Your task to perform on an android device: Play the last video I watched on Youtube Image 0: 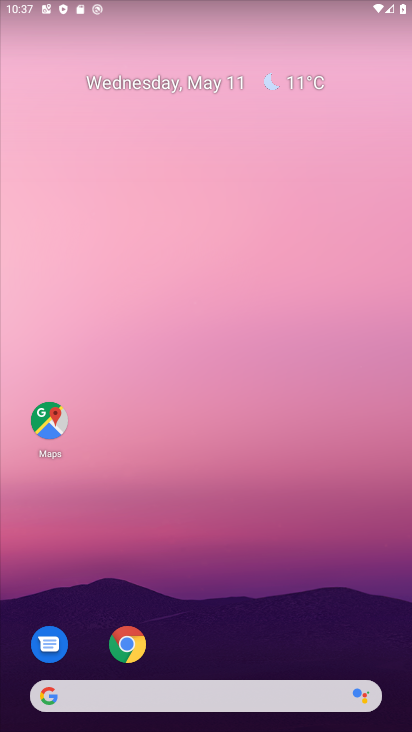
Step 0: drag from (274, 668) to (271, 13)
Your task to perform on an android device: Play the last video I watched on Youtube Image 1: 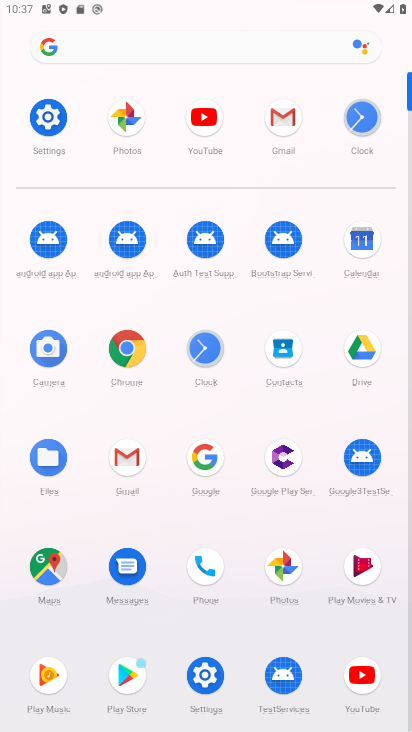
Step 1: click (200, 114)
Your task to perform on an android device: Play the last video I watched on Youtube Image 2: 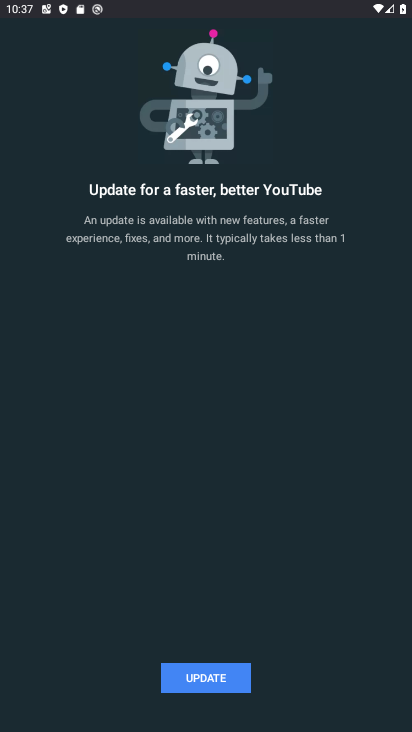
Step 2: click (212, 689)
Your task to perform on an android device: Play the last video I watched on Youtube Image 3: 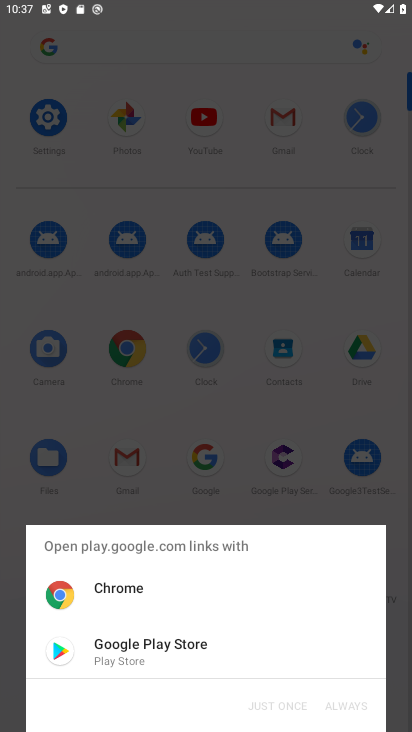
Step 3: click (131, 649)
Your task to perform on an android device: Play the last video I watched on Youtube Image 4: 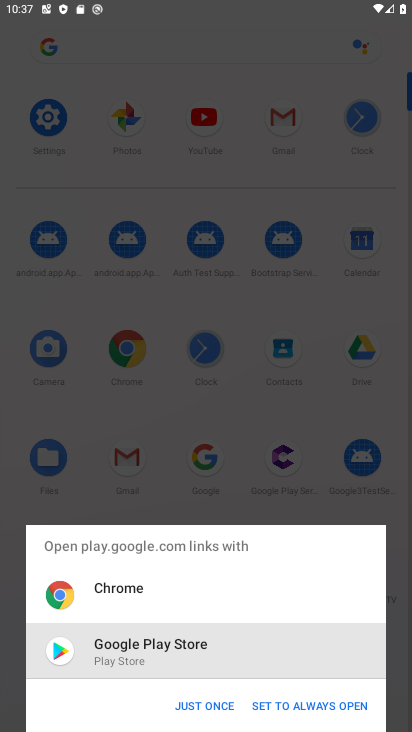
Step 4: click (183, 710)
Your task to perform on an android device: Play the last video I watched on Youtube Image 5: 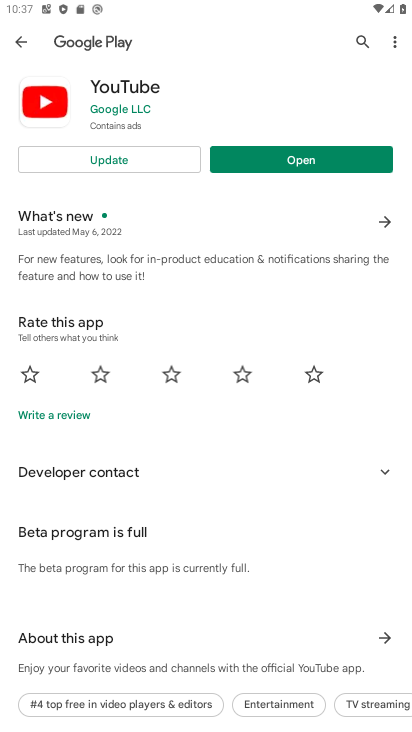
Step 5: click (161, 154)
Your task to perform on an android device: Play the last video I watched on Youtube Image 6: 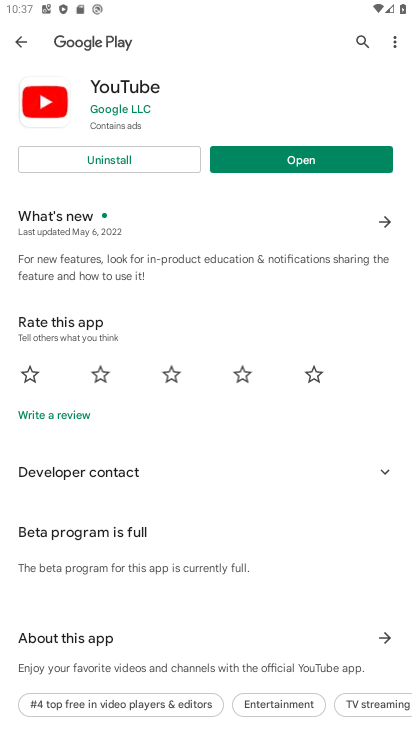
Step 6: click (281, 164)
Your task to perform on an android device: Play the last video I watched on Youtube Image 7: 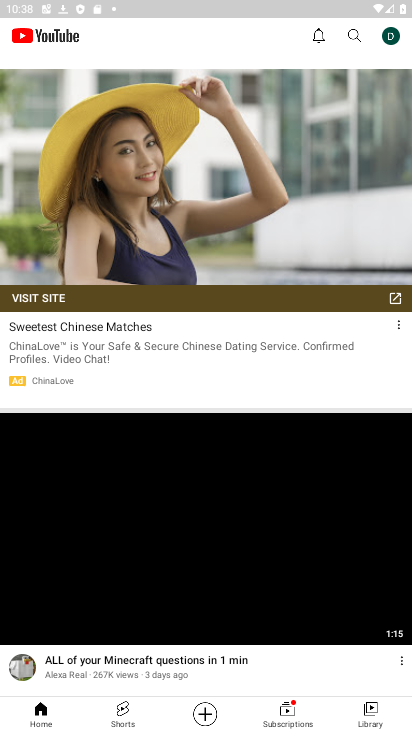
Step 7: click (367, 723)
Your task to perform on an android device: Play the last video I watched on Youtube Image 8: 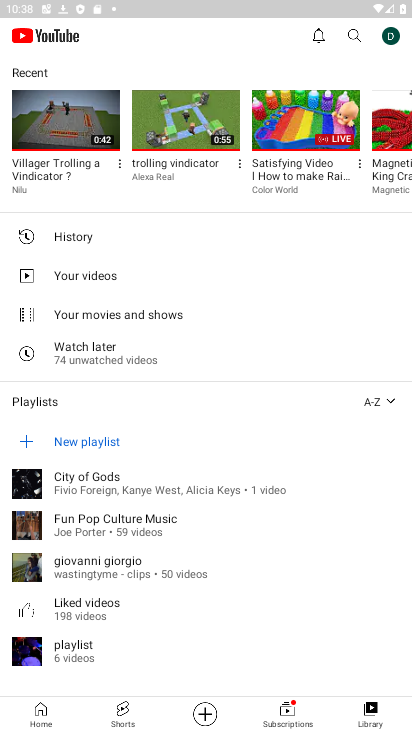
Step 8: click (77, 240)
Your task to perform on an android device: Play the last video I watched on Youtube Image 9: 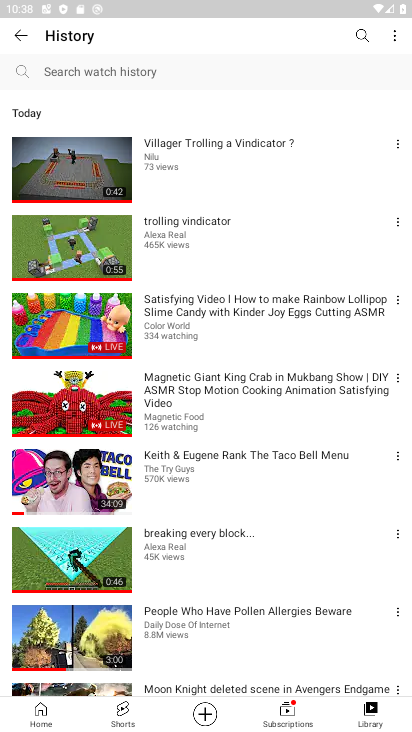
Step 9: click (68, 170)
Your task to perform on an android device: Play the last video I watched on Youtube Image 10: 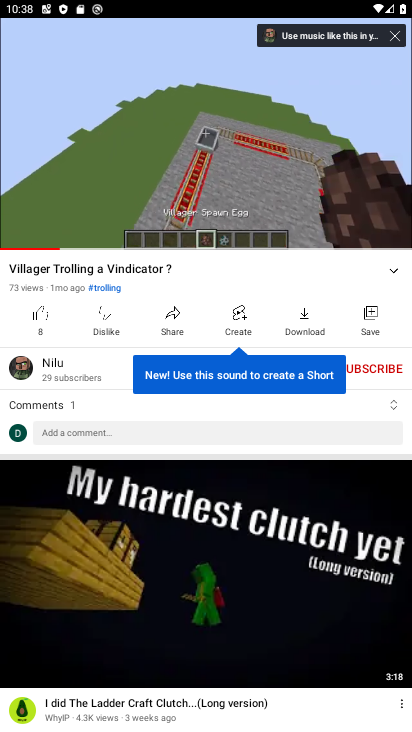
Step 10: click (220, 188)
Your task to perform on an android device: Play the last video I watched on Youtube Image 11: 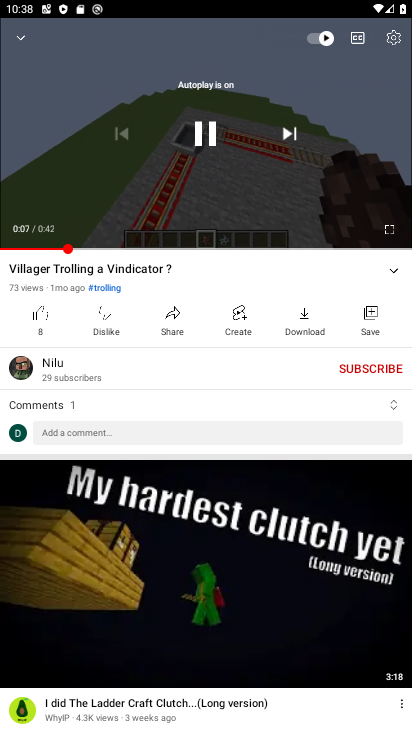
Step 11: click (195, 142)
Your task to perform on an android device: Play the last video I watched on Youtube Image 12: 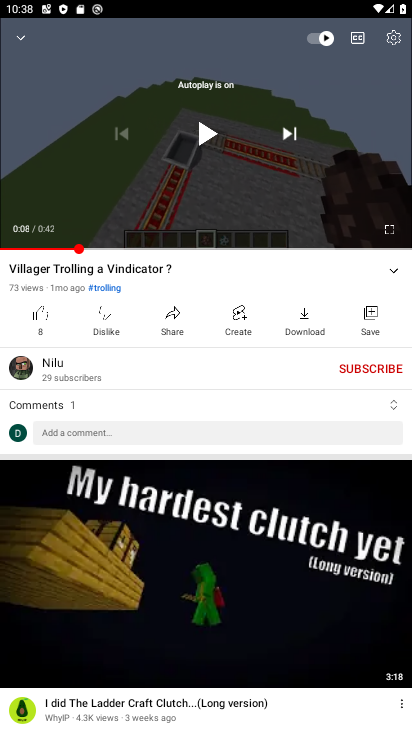
Step 12: task complete